Your task to perform on an android device: find which apps use the phone's location Image 0: 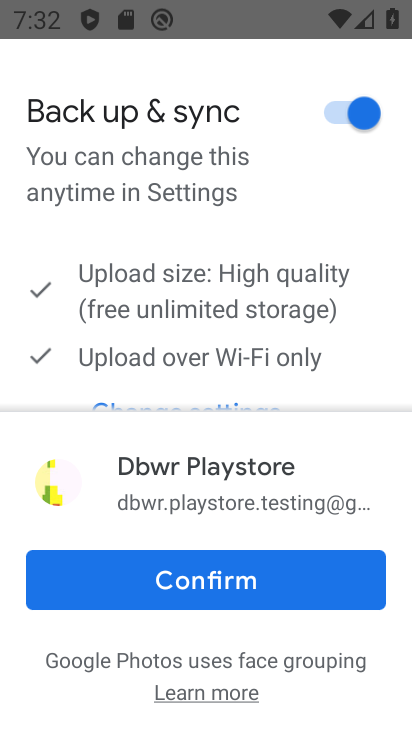
Step 0: press home button
Your task to perform on an android device: find which apps use the phone's location Image 1: 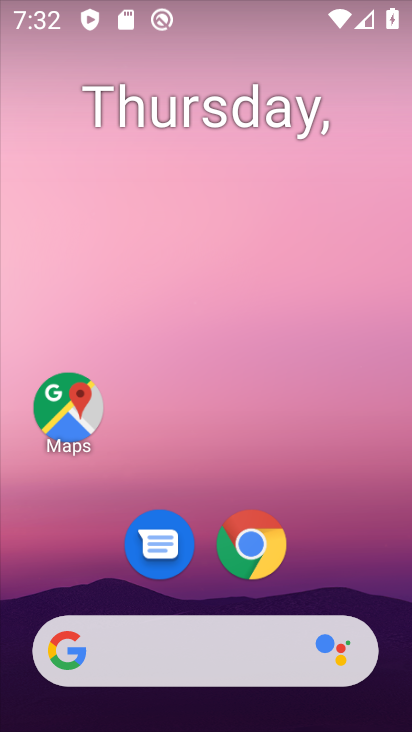
Step 1: drag from (334, 558) to (215, 142)
Your task to perform on an android device: find which apps use the phone's location Image 2: 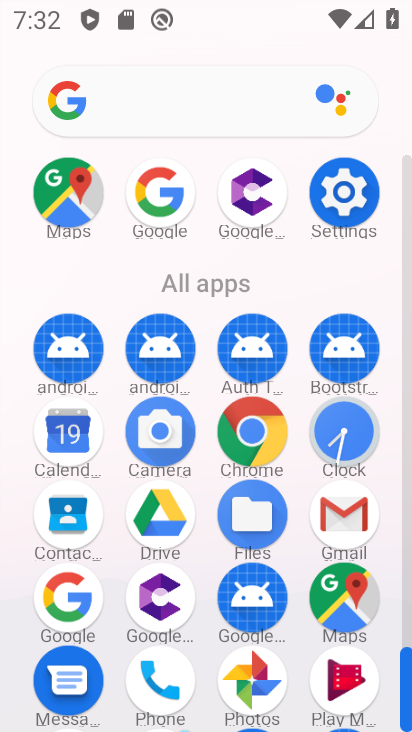
Step 2: click (346, 191)
Your task to perform on an android device: find which apps use the phone's location Image 3: 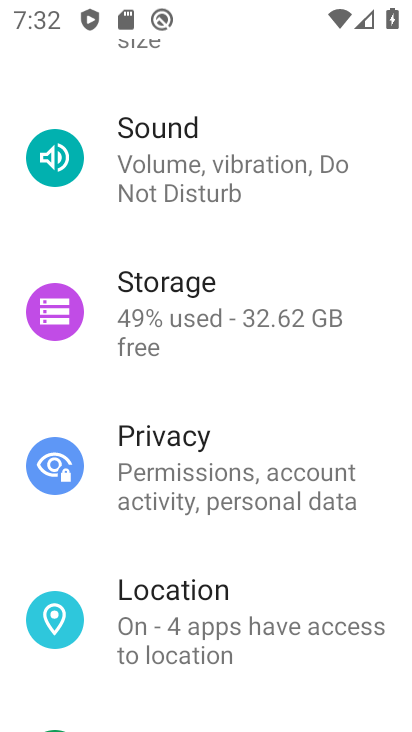
Step 3: drag from (247, 549) to (275, 431)
Your task to perform on an android device: find which apps use the phone's location Image 4: 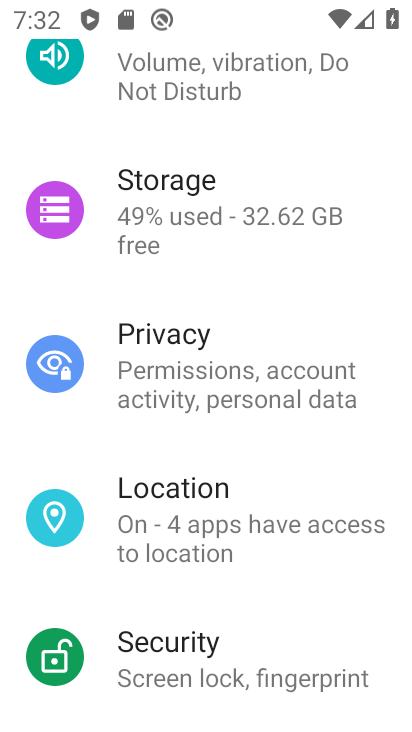
Step 4: click (209, 484)
Your task to perform on an android device: find which apps use the phone's location Image 5: 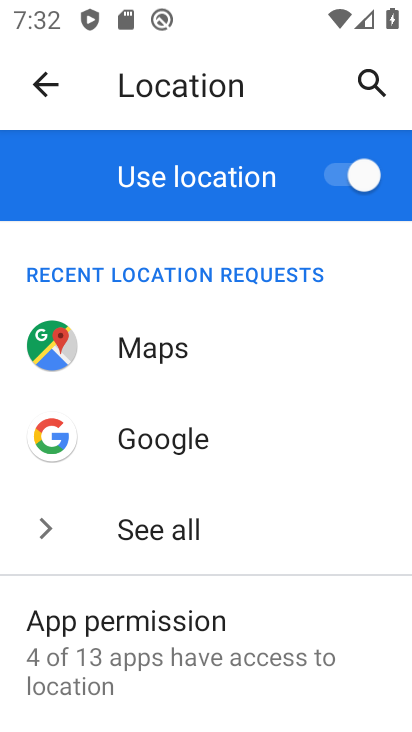
Step 5: click (179, 624)
Your task to perform on an android device: find which apps use the phone's location Image 6: 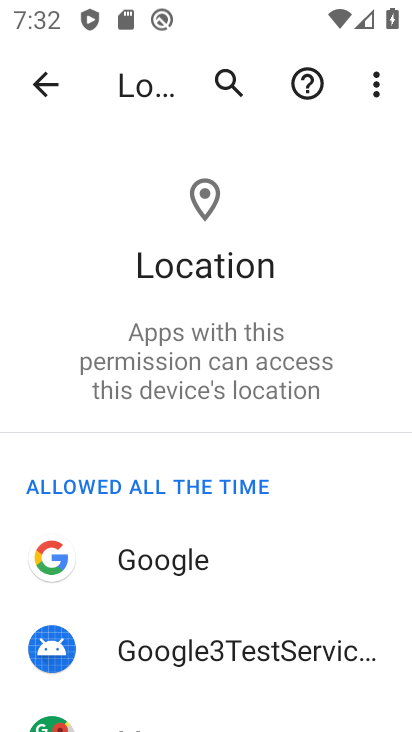
Step 6: drag from (206, 596) to (292, 471)
Your task to perform on an android device: find which apps use the phone's location Image 7: 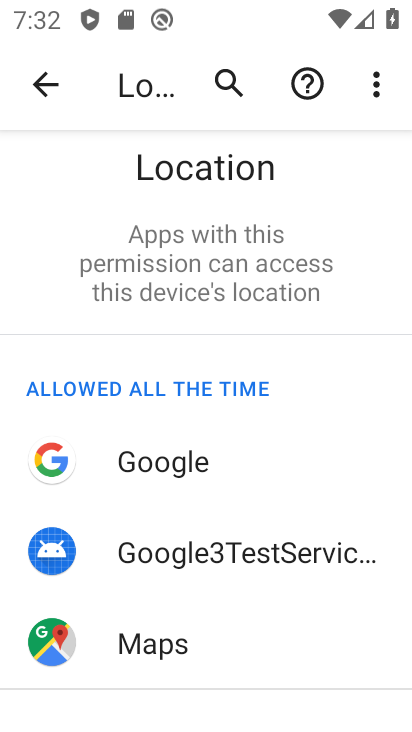
Step 7: click (147, 642)
Your task to perform on an android device: find which apps use the phone's location Image 8: 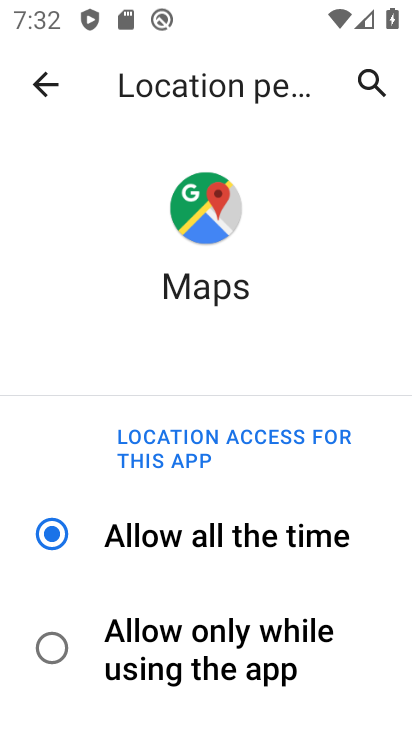
Step 8: task complete